Your task to perform on an android device: Toggle the flashlight Image 0: 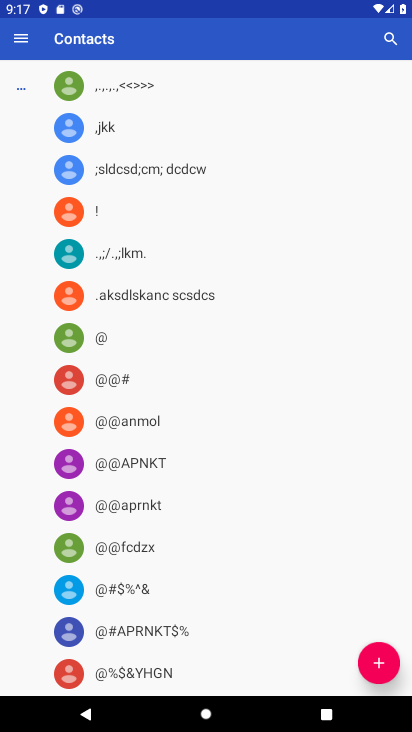
Step 0: press home button
Your task to perform on an android device: Toggle the flashlight Image 1: 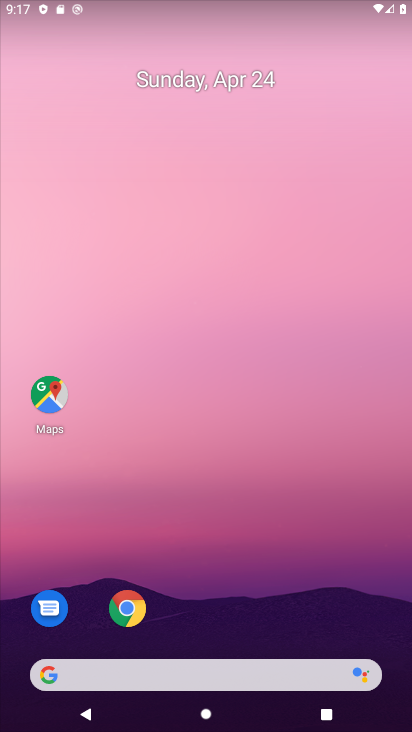
Step 1: drag from (355, 554) to (404, 85)
Your task to perform on an android device: Toggle the flashlight Image 2: 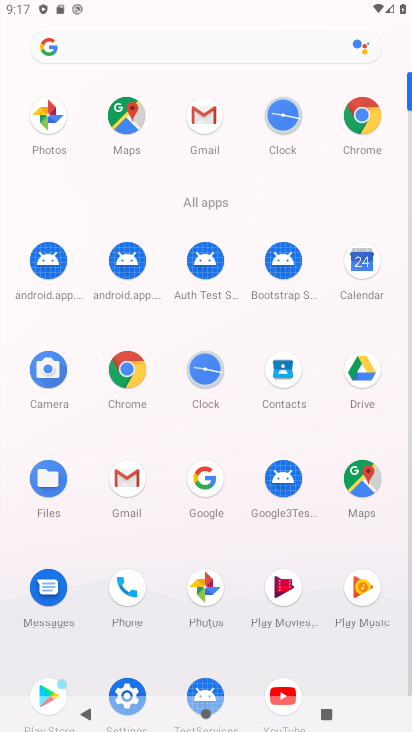
Step 2: drag from (354, 658) to (394, 199)
Your task to perform on an android device: Toggle the flashlight Image 3: 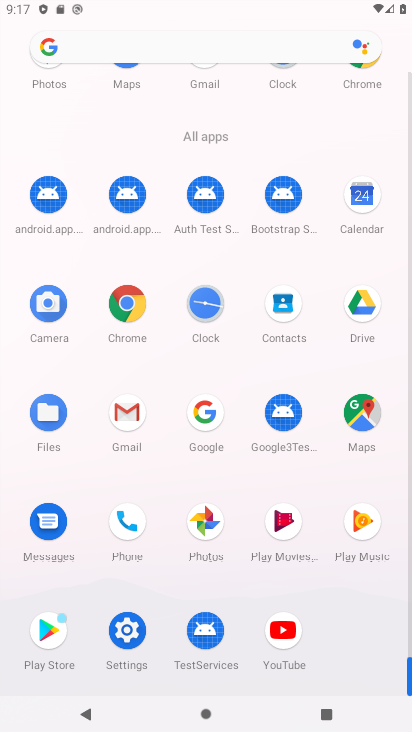
Step 3: click (131, 639)
Your task to perform on an android device: Toggle the flashlight Image 4: 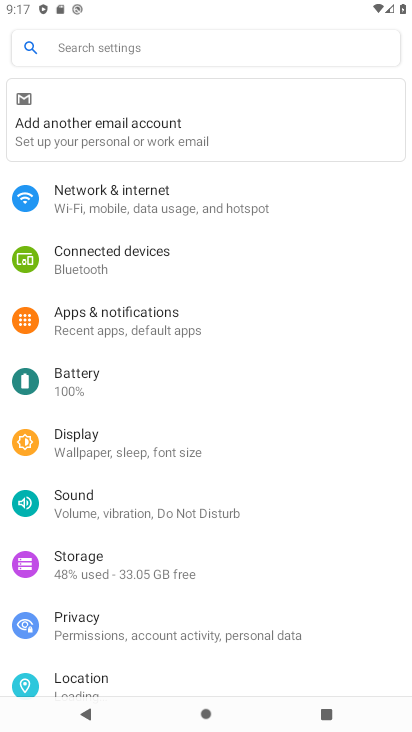
Step 4: task complete